Your task to perform on an android device: Find coffee shops on Maps Image 0: 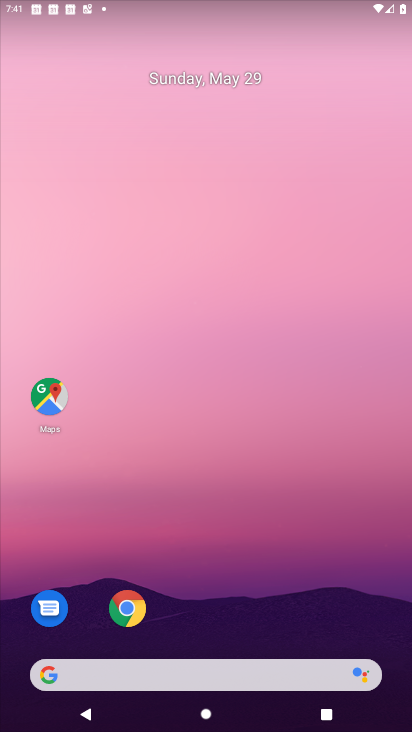
Step 0: click (39, 400)
Your task to perform on an android device: Find coffee shops on Maps Image 1: 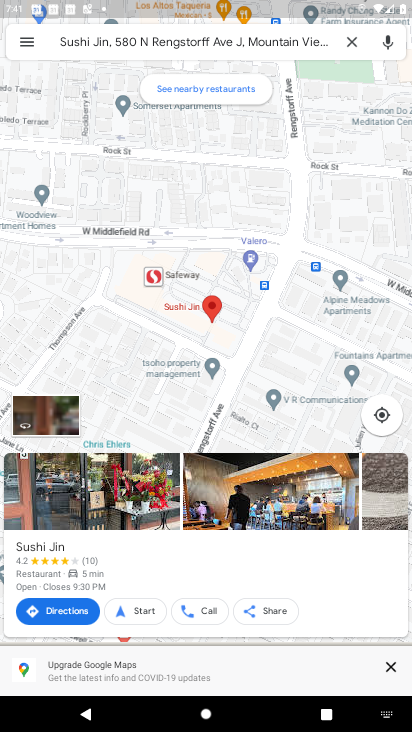
Step 1: click (357, 41)
Your task to perform on an android device: Find coffee shops on Maps Image 2: 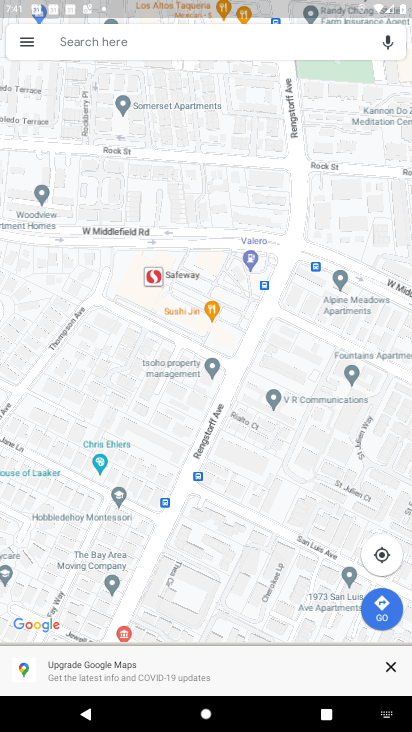
Step 2: click (180, 42)
Your task to perform on an android device: Find coffee shops on Maps Image 3: 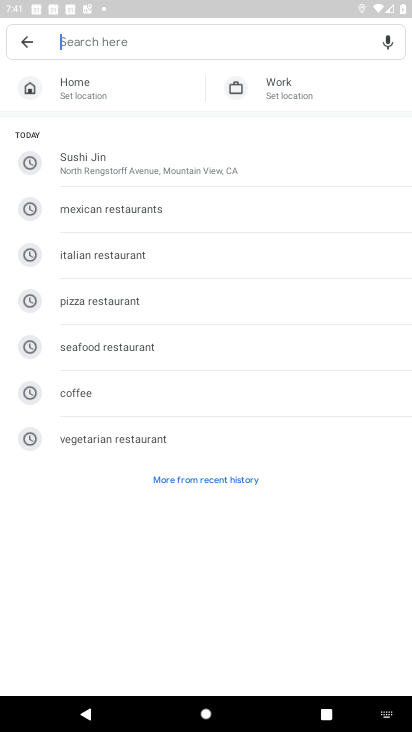
Step 3: click (85, 390)
Your task to perform on an android device: Find coffee shops on Maps Image 4: 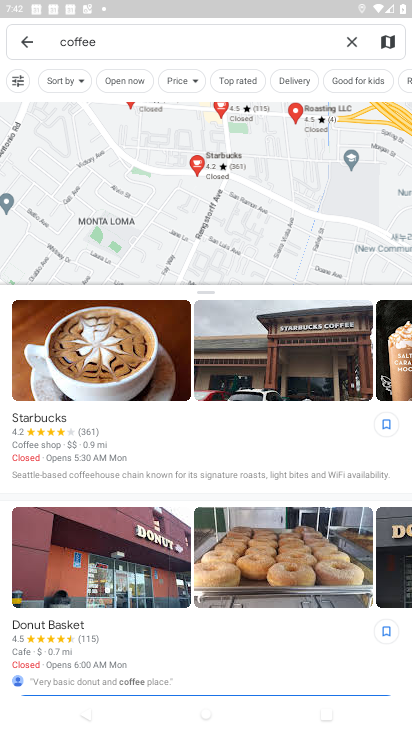
Step 4: task complete